Your task to perform on an android device: Search for the best books on Goodreads. Image 0: 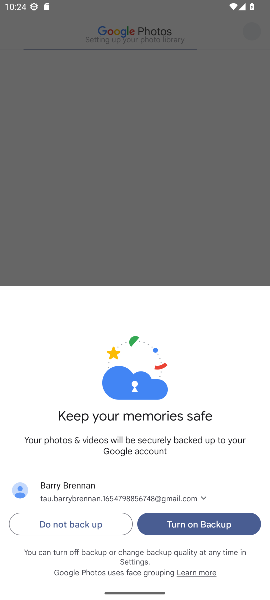
Step 0: press home button
Your task to perform on an android device: Search for the best books on Goodreads. Image 1: 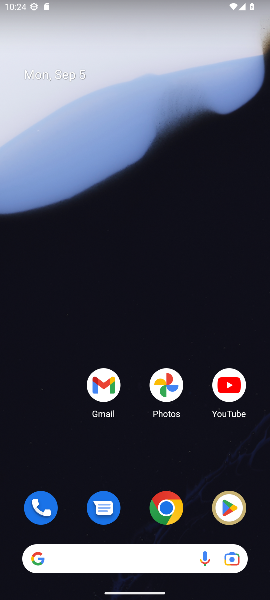
Step 1: drag from (128, 479) to (208, 61)
Your task to perform on an android device: Search for the best books on Goodreads. Image 2: 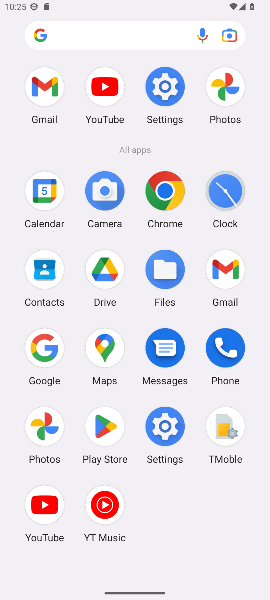
Step 2: click (161, 189)
Your task to perform on an android device: Search for the best books on Goodreads. Image 3: 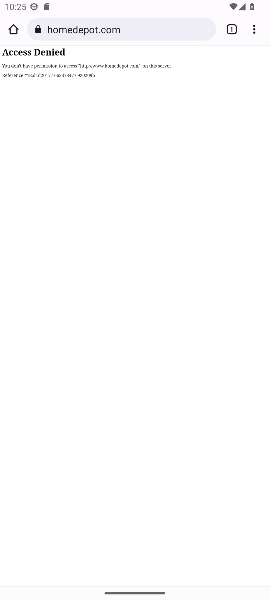
Step 3: click (112, 33)
Your task to perform on an android device: Search for the best books on Goodreads. Image 4: 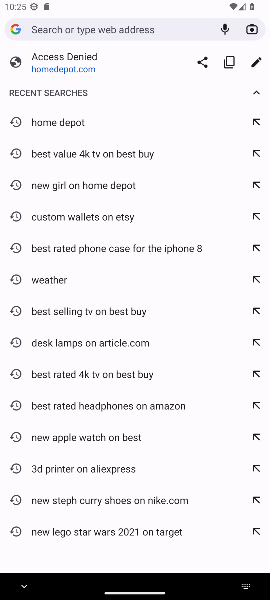
Step 4: type "best book on Goodreads"
Your task to perform on an android device: Search for the best books on Goodreads. Image 5: 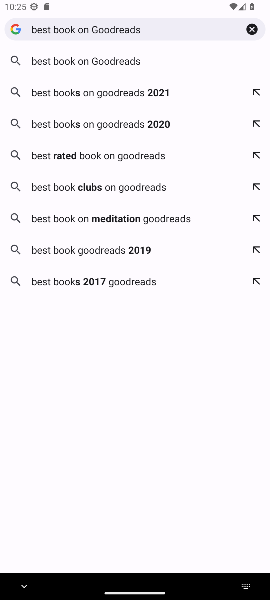
Step 5: press enter
Your task to perform on an android device: Search for the best books on Goodreads. Image 6: 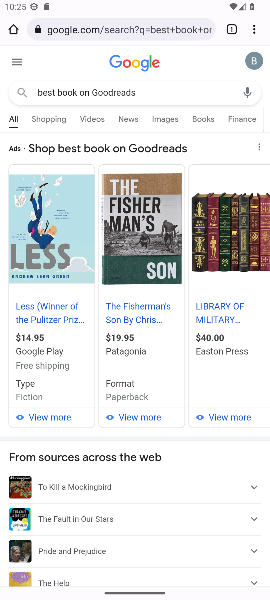
Step 6: drag from (167, 404) to (205, 52)
Your task to perform on an android device: Search for the best books on Goodreads. Image 7: 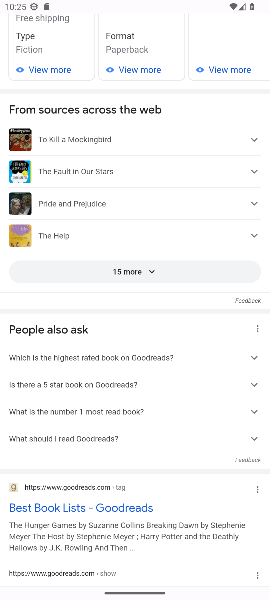
Step 7: click (95, 510)
Your task to perform on an android device: Search for the best books on Goodreads. Image 8: 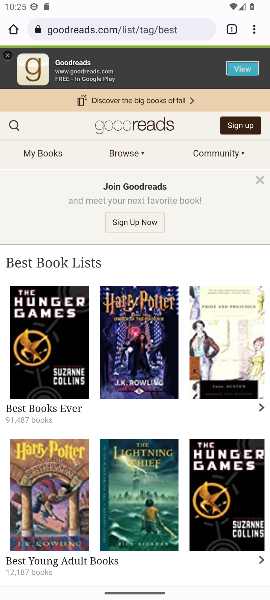
Step 8: task complete